Your task to perform on an android device: Search for sushi restaurants on Maps Image 0: 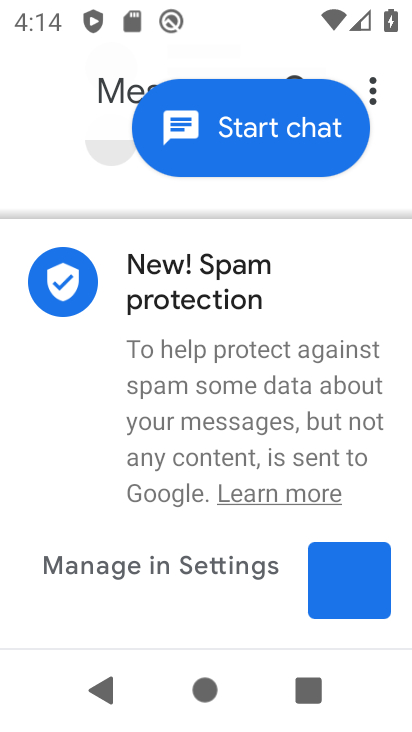
Step 0: press back button
Your task to perform on an android device: Search for sushi restaurants on Maps Image 1: 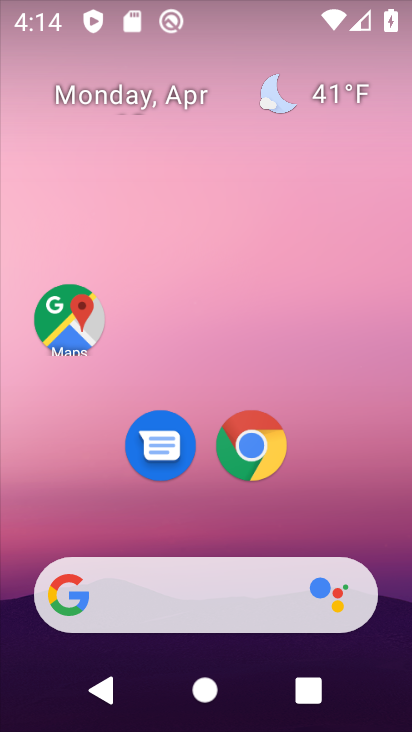
Step 1: drag from (176, 440) to (236, 44)
Your task to perform on an android device: Search for sushi restaurants on Maps Image 2: 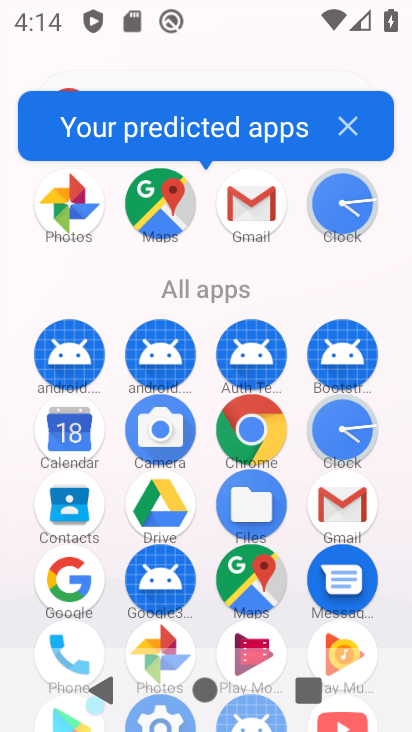
Step 2: click (252, 596)
Your task to perform on an android device: Search for sushi restaurants on Maps Image 3: 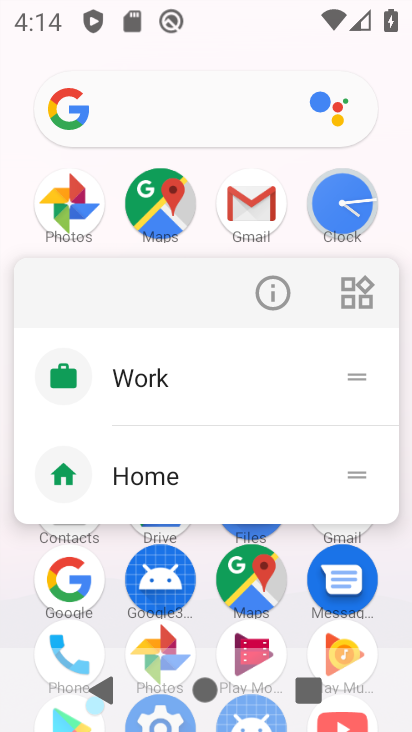
Step 3: click (247, 574)
Your task to perform on an android device: Search for sushi restaurants on Maps Image 4: 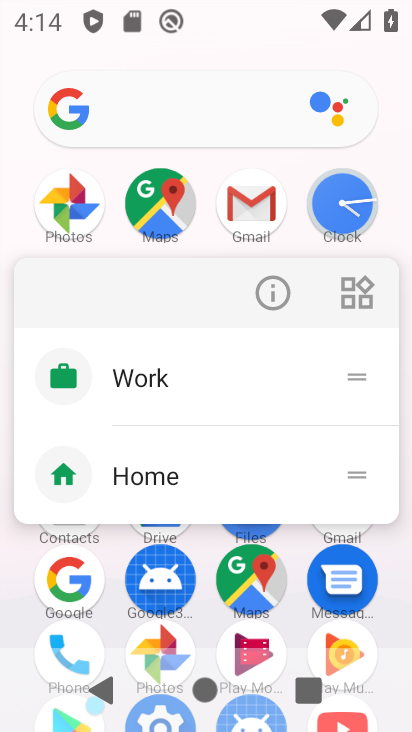
Step 4: click (257, 568)
Your task to perform on an android device: Search for sushi restaurants on Maps Image 5: 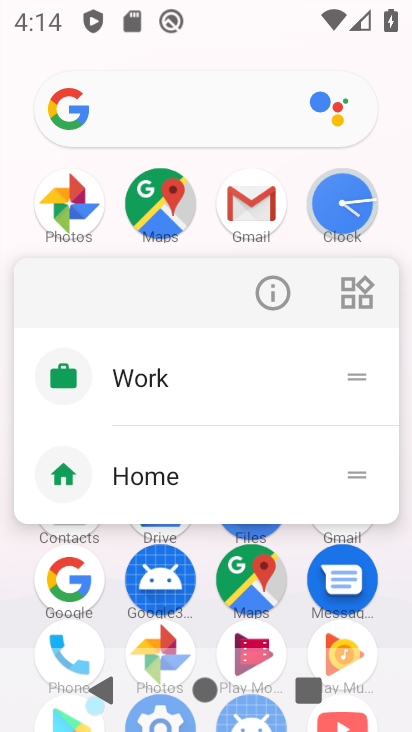
Step 5: click (234, 594)
Your task to perform on an android device: Search for sushi restaurants on Maps Image 6: 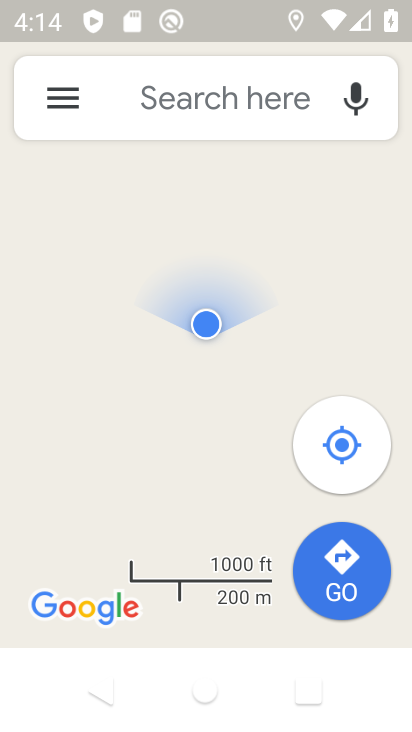
Step 6: click (182, 118)
Your task to perform on an android device: Search for sushi restaurants on Maps Image 7: 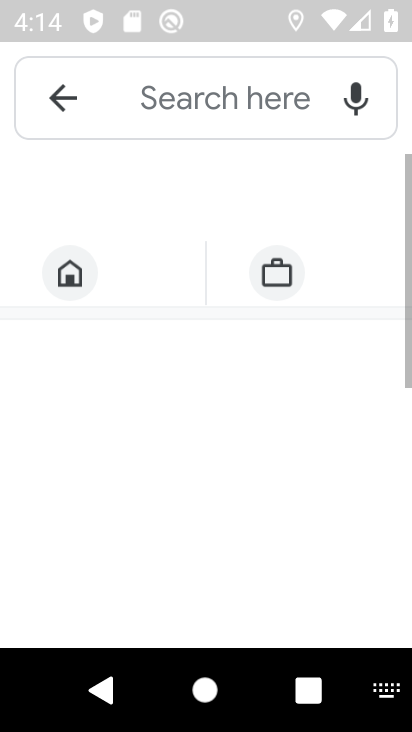
Step 7: type "sushi restaurants"
Your task to perform on an android device: Search for sushi restaurants on Maps Image 8: 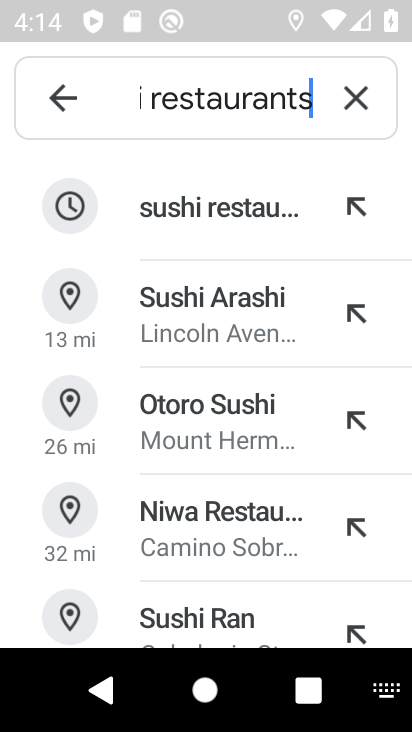
Step 8: click (186, 230)
Your task to perform on an android device: Search for sushi restaurants on Maps Image 9: 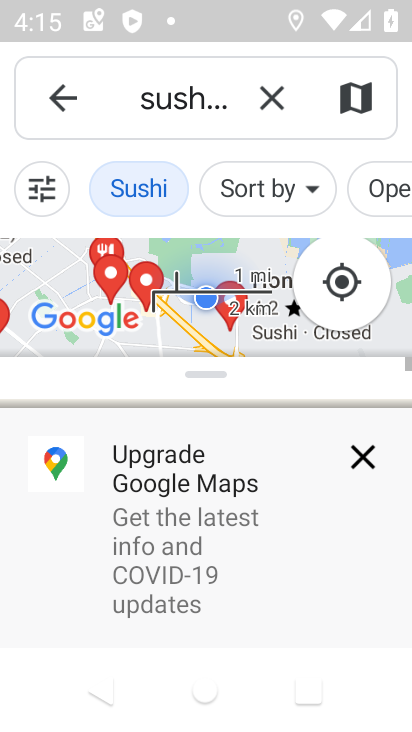
Step 9: click (355, 457)
Your task to perform on an android device: Search for sushi restaurants on Maps Image 10: 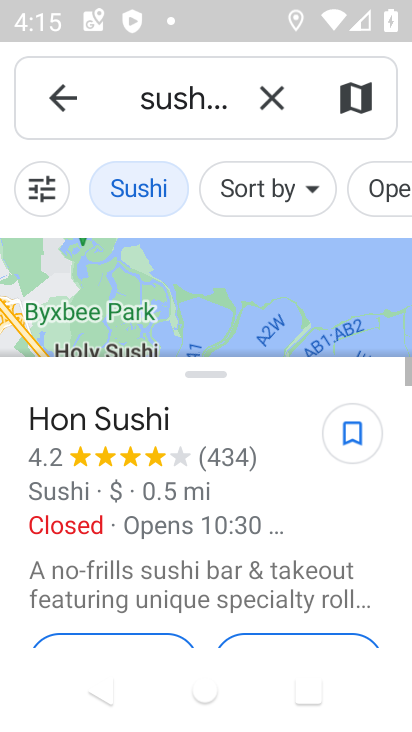
Step 10: task complete